Your task to perform on an android device: see sites visited before in the chrome app Image 0: 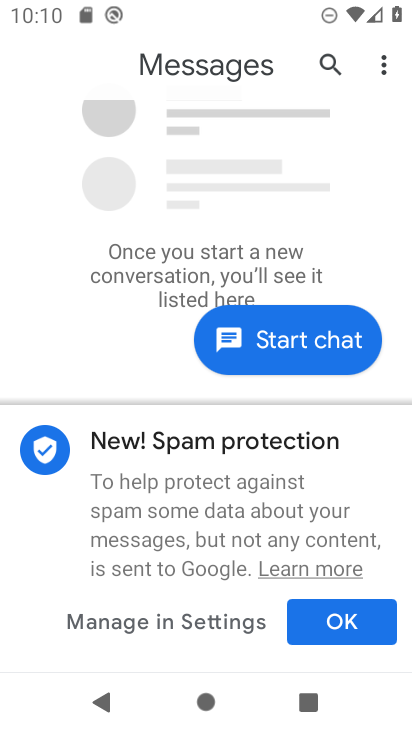
Step 0: press back button
Your task to perform on an android device: see sites visited before in the chrome app Image 1: 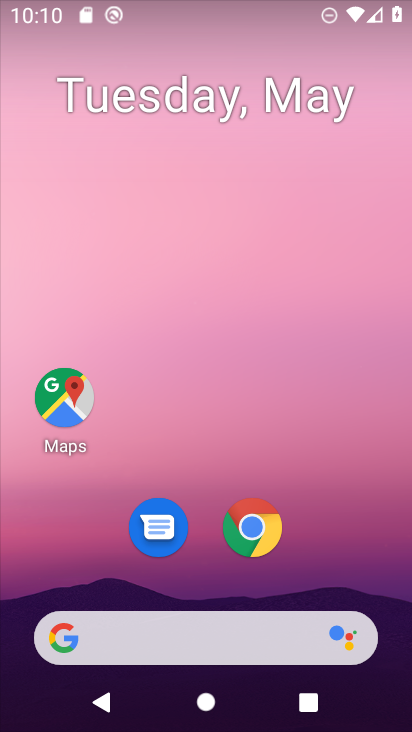
Step 1: click (249, 529)
Your task to perform on an android device: see sites visited before in the chrome app Image 2: 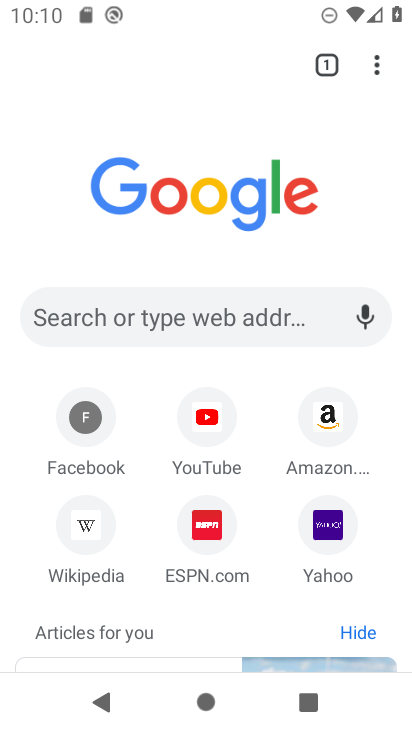
Step 2: click (376, 66)
Your task to perform on an android device: see sites visited before in the chrome app Image 3: 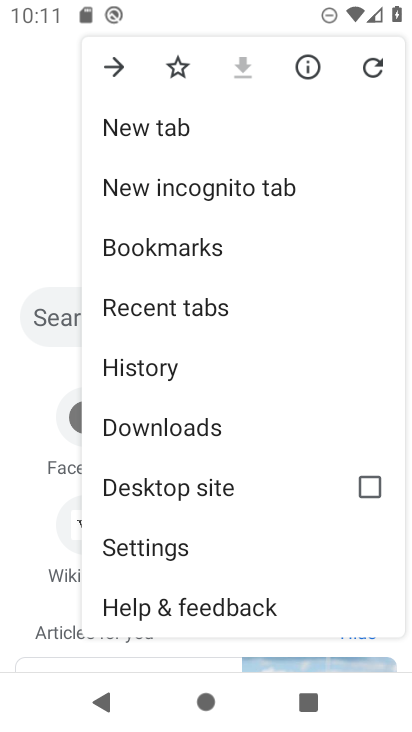
Step 3: click (163, 373)
Your task to perform on an android device: see sites visited before in the chrome app Image 4: 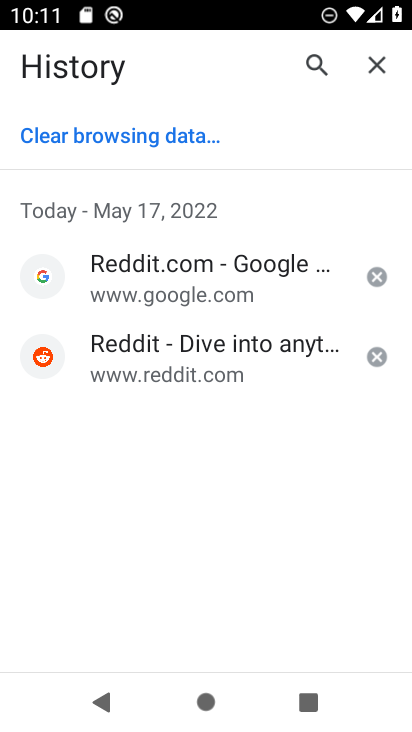
Step 4: task complete